Your task to perform on an android device: change the clock display to analog Image 0: 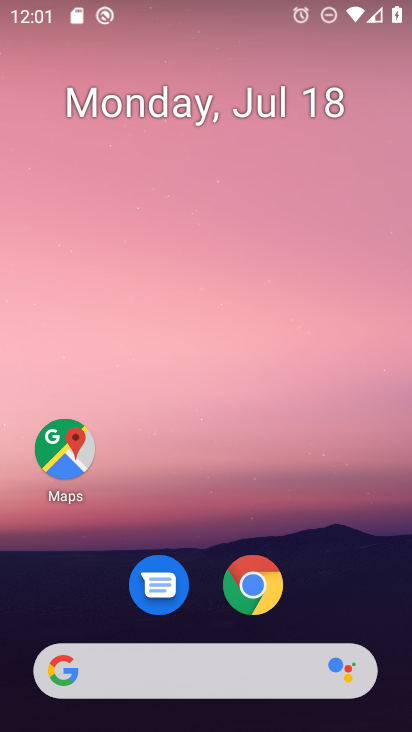
Step 0: drag from (317, 586) to (313, 79)
Your task to perform on an android device: change the clock display to analog Image 1: 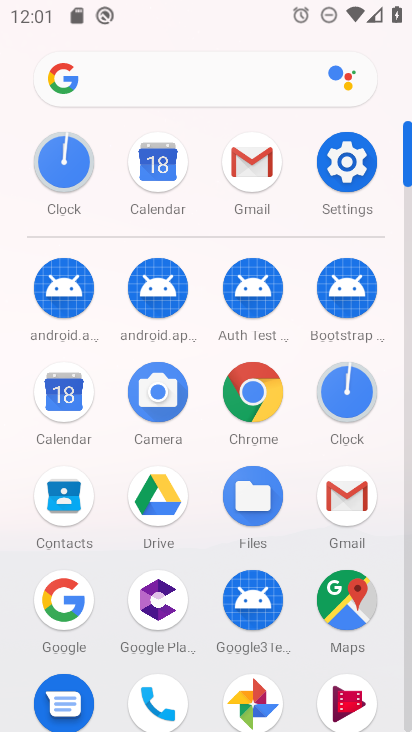
Step 1: click (75, 160)
Your task to perform on an android device: change the clock display to analog Image 2: 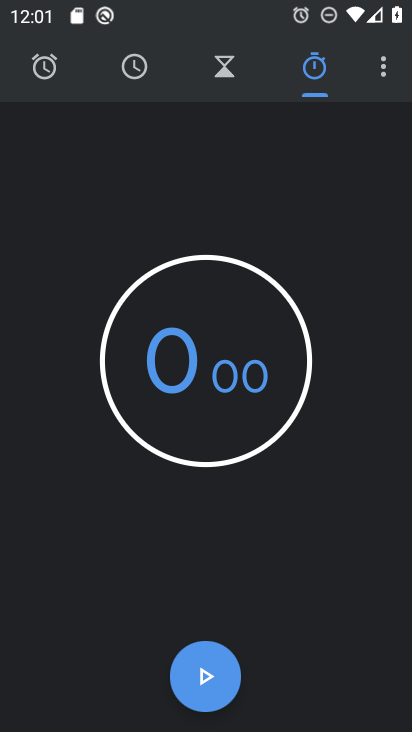
Step 2: click (140, 82)
Your task to perform on an android device: change the clock display to analog Image 3: 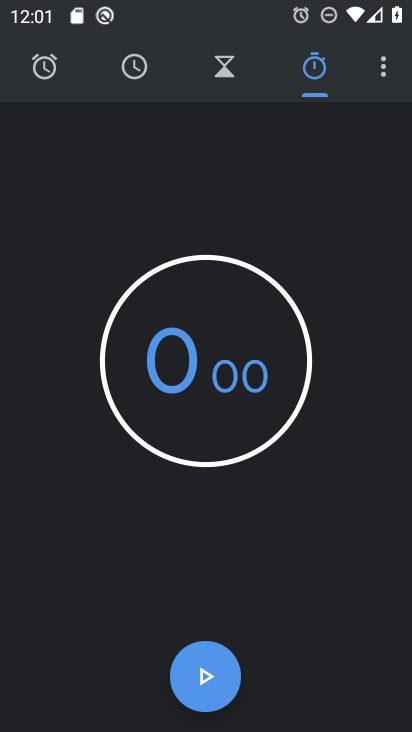
Step 3: click (138, 64)
Your task to perform on an android device: change the clock display to analog Image 4: 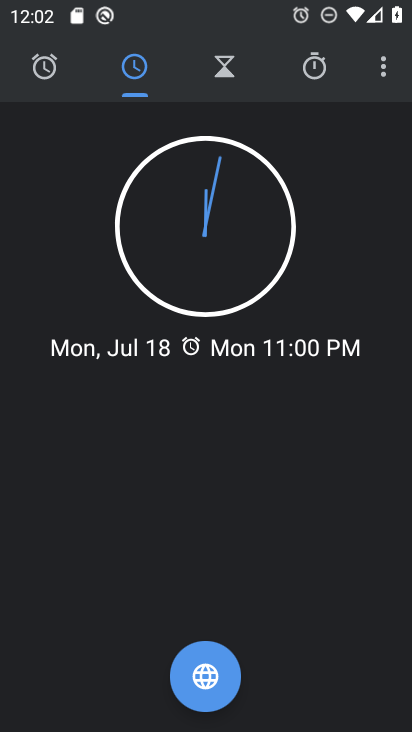
Step 4: task complete